Your task to perform on an android device: Open Yahoo.com Image 0: 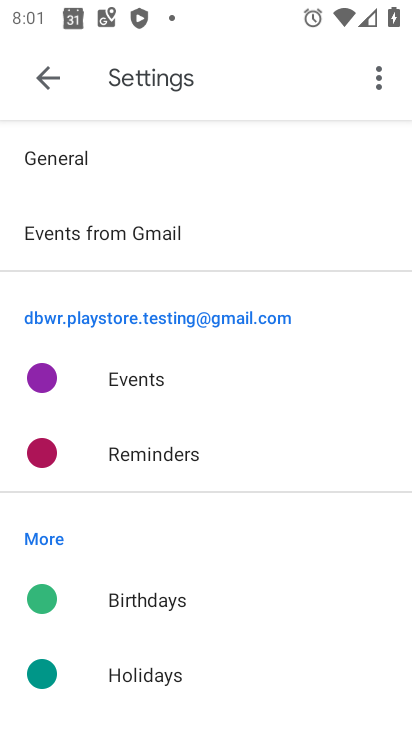
Step 0: press home button
Your task to perform on an android device: Open Yahoo.com Image 1: 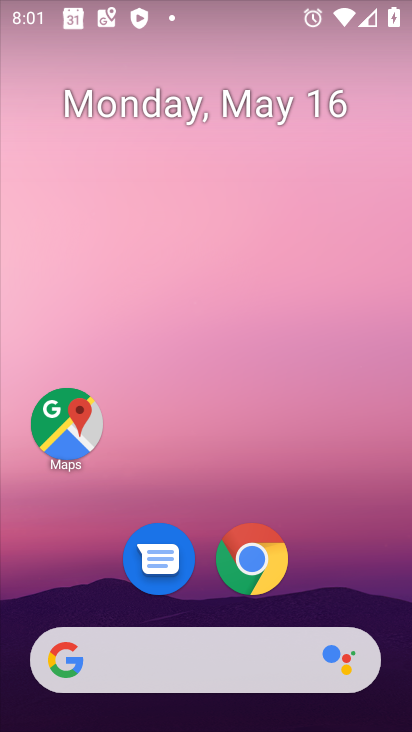
Step 1: drag from (358, 542) to (298, 139)
Your task to perform on an android device: Open Yahoo.com Image 2: 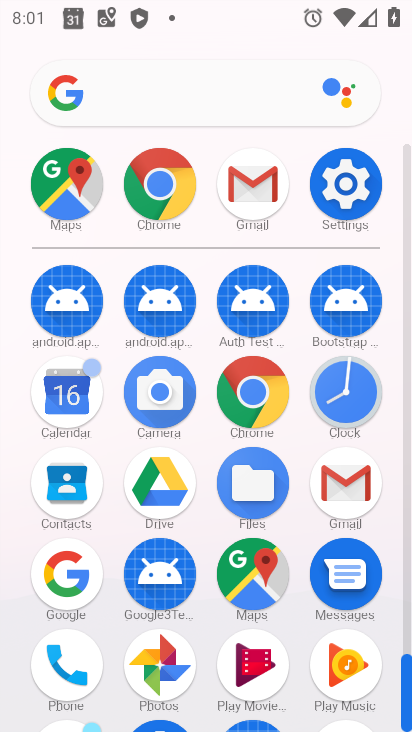
Step 2: click (139, 197)
Your task to perform on an android device: Open Yahoo.com Image 3: 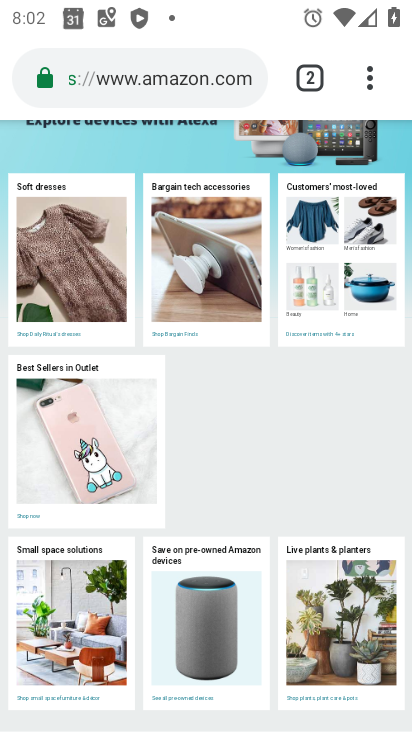
Step 3: click (158, 69)
Your task to perform on an android device: Open Yahoo.com Image 4: 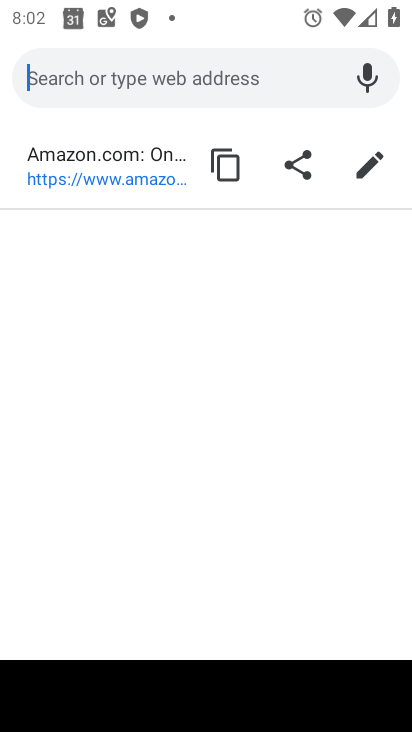
Step 4: type "yahoo.com"
Your task to perform on an android device: Open Yahoo.com Image 5: 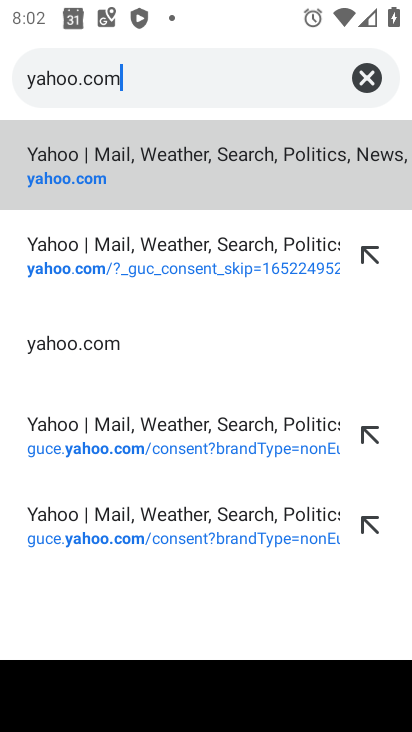
Step 5: click (181, 188)
Your task to perform on an android device: Open Yahoo.com Image 6: 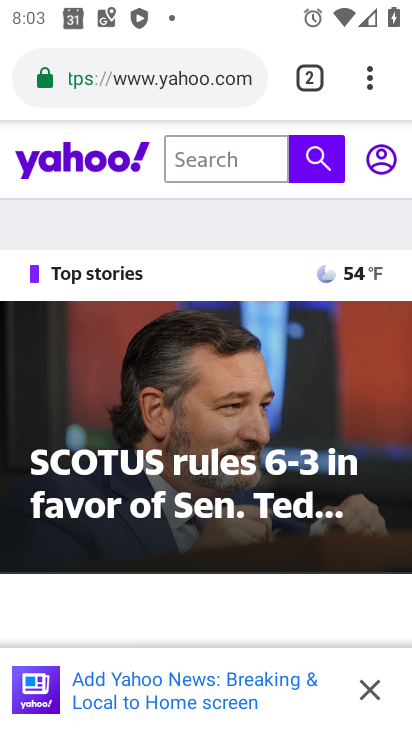
Step 6: task complete